Your task to perform on an android device: Open Google Chrome Image 0: 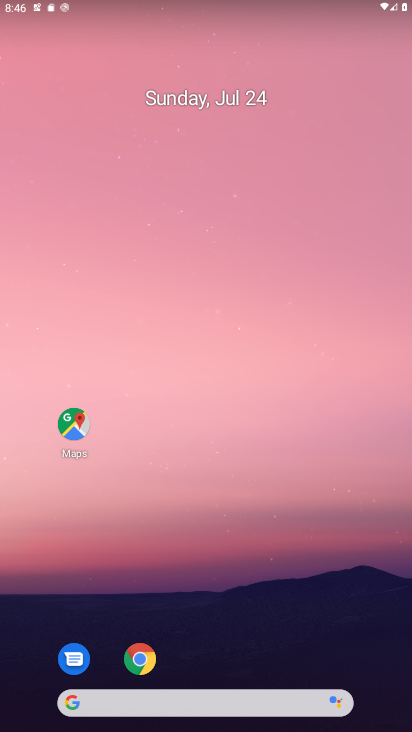
Step 0: click (140, 656)
Your task to perform on an android device: Open Google Chrome Image 1: 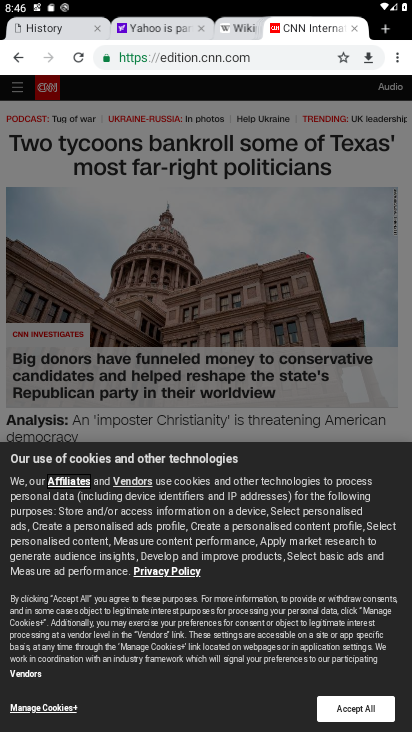
Step 1: task complete